Your task to perform on an android device: change your default location settings in chrome Image 0: 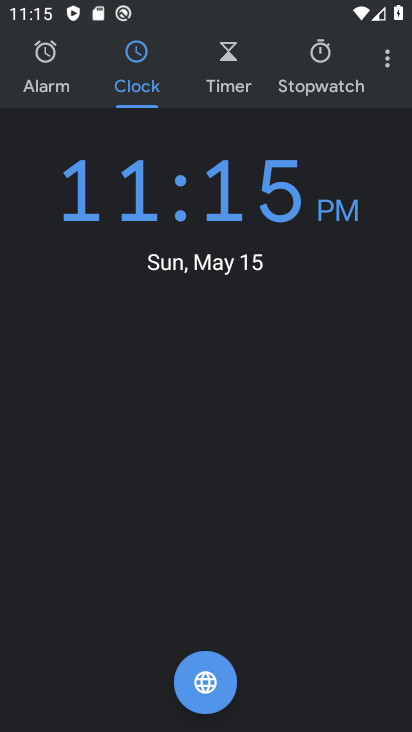
Step 0: press home button
Your task to perform on an android device: change your default location settings in chrome Image 1: 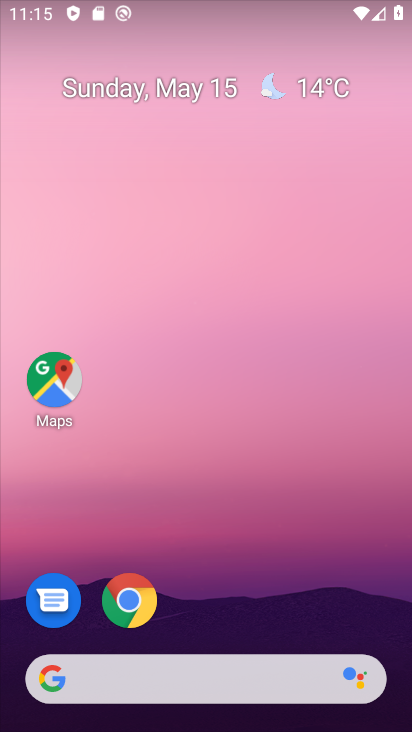
Step 1: click (129, 598)
Your task to perform on an android device: change your default location settings in chrome Image 2: 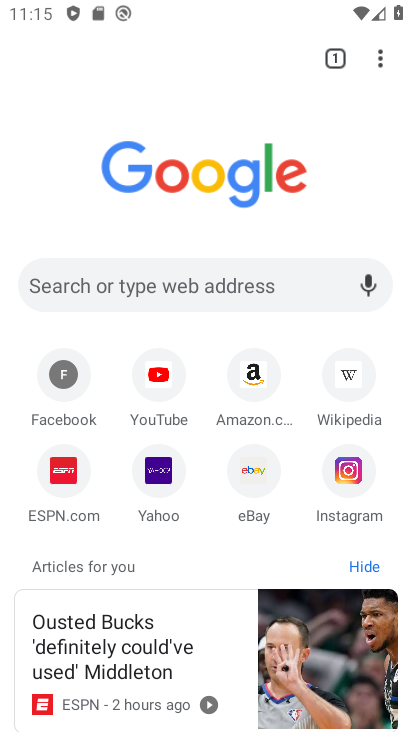
Step 2: click (378, 69)
Your task to perform on an android device: change your default location settings in chrome Image 3: 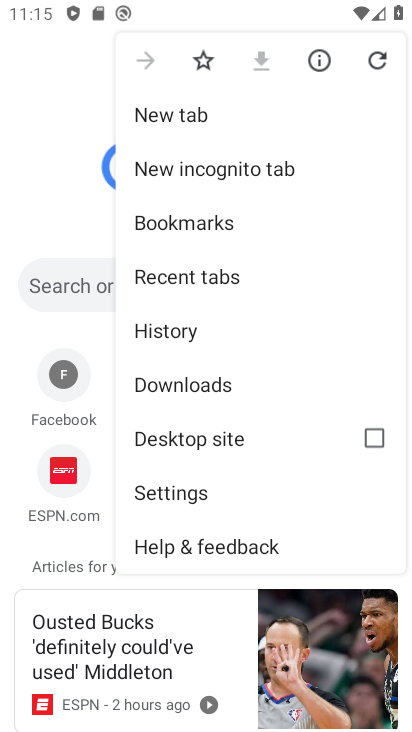
Step 3: click (178, 493)
Your task to perform on an android device: change your default location settings in chrome Image 4: 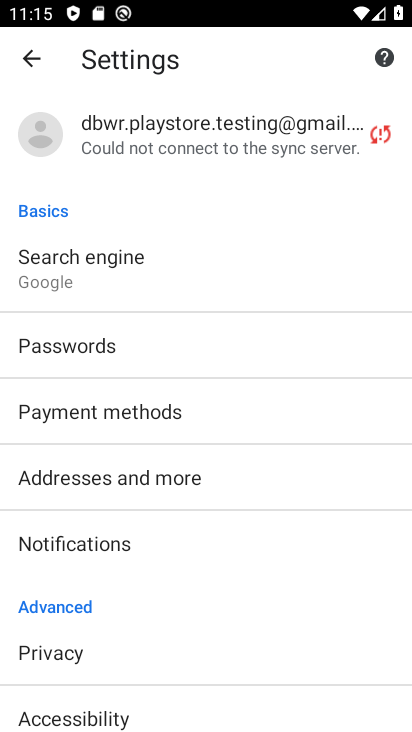
Step 4: drag from (191, 659) to (255, 203)
Your task to perform on an android device: change your default location settings in chrome Image 5: 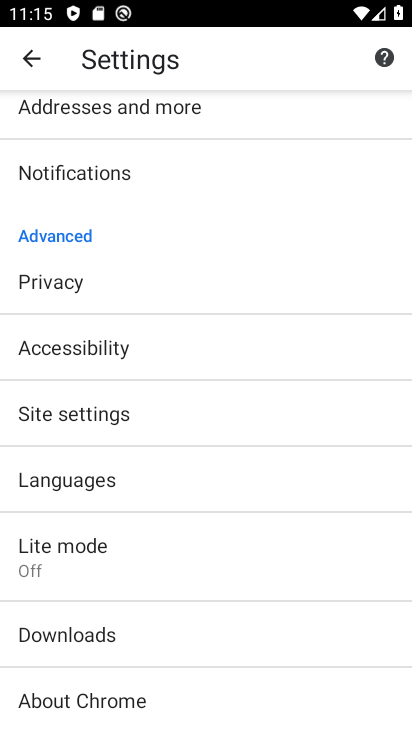
Step 5: click (61, 400)
Your task to perform on an android device: change your default location settings in chrome Image 6: 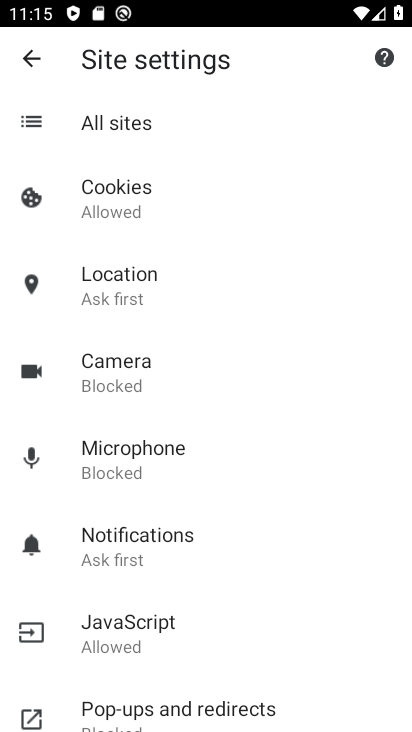
Step 6: click (101, 281)
Your task to perform on an android device: change your default location settings in chrome Image 7: 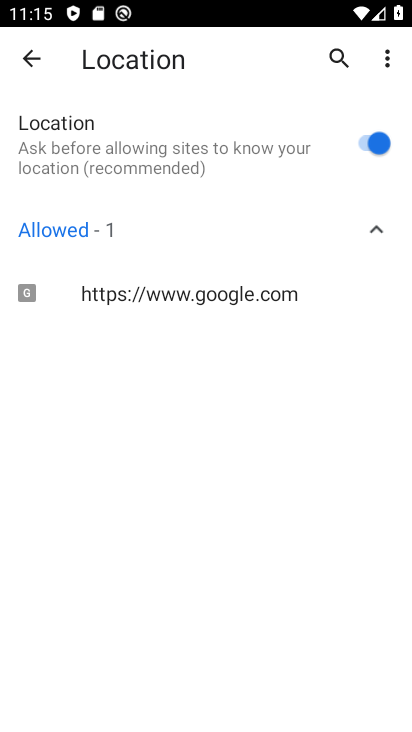
Step 7: click (360, 142)
Your task to perform on an android device: change your default location settings in chrome Image 8: 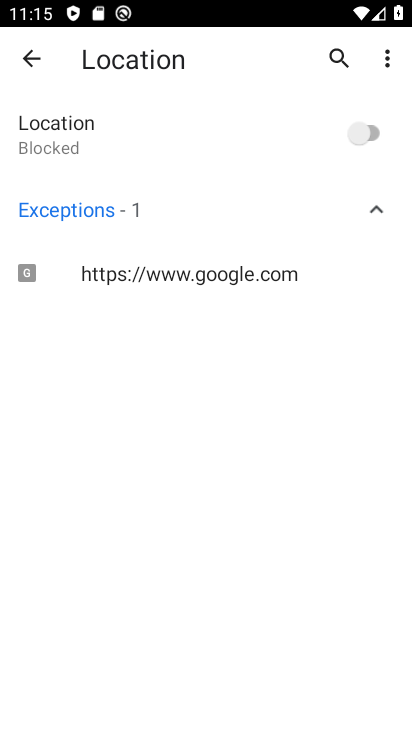
Step 8: task complete